Your task to perform on an android device: add a contact in the contacts app Image 0: 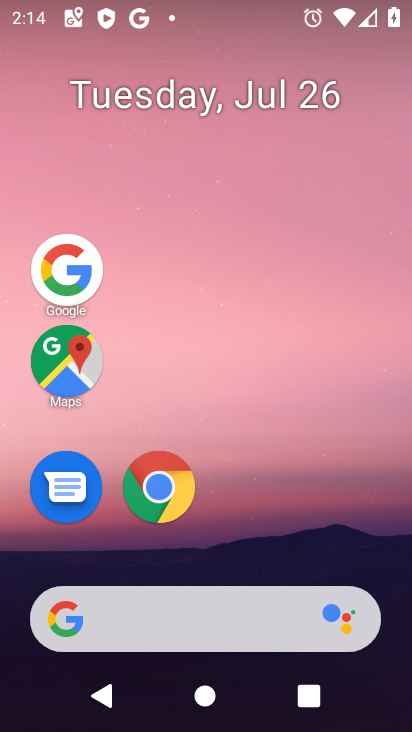
Step 0: drag from (101, 591) to (167, 258)
Your task to perform on an android device: add a contact in the contacts app Image 1: 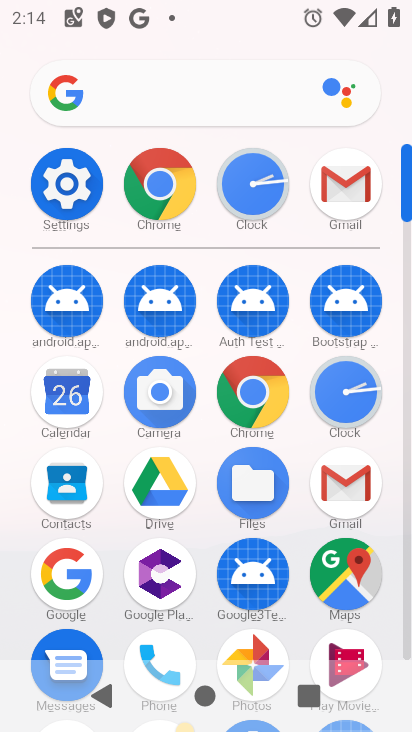
Step 1: click (82, 477)
Your task to perform on an android device: add a contact in the contacts app Image 2: 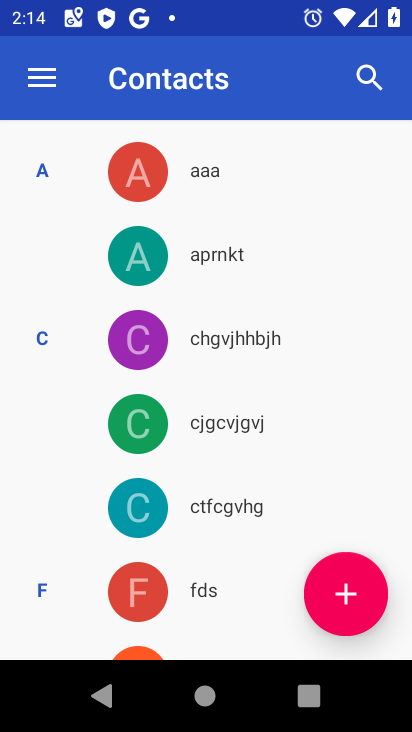
Step 2: click (356, 597)
Your task to perform on an android device: add a contact in the contacts app Image 3: 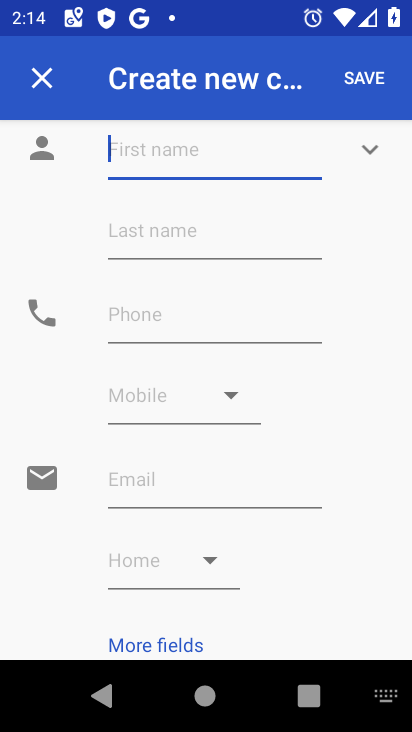
Step 3: type "jhchjvb"
Your task to perform on an android device: add a contact in the contacts app Image 4: 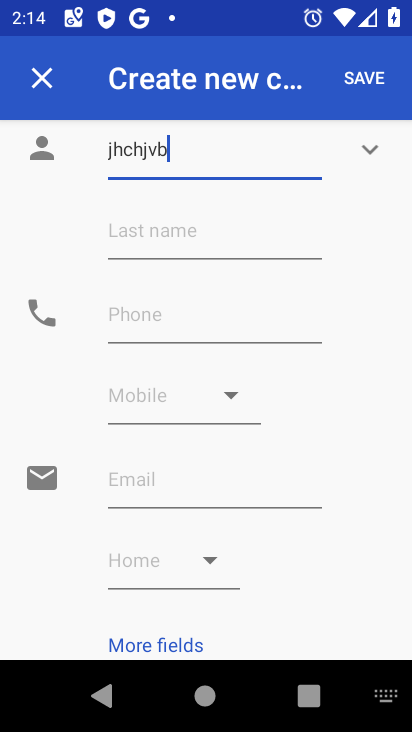
Step 4: click (223, 304)
Your task to perform on an android device: add a contact in the contacts app Image 5: 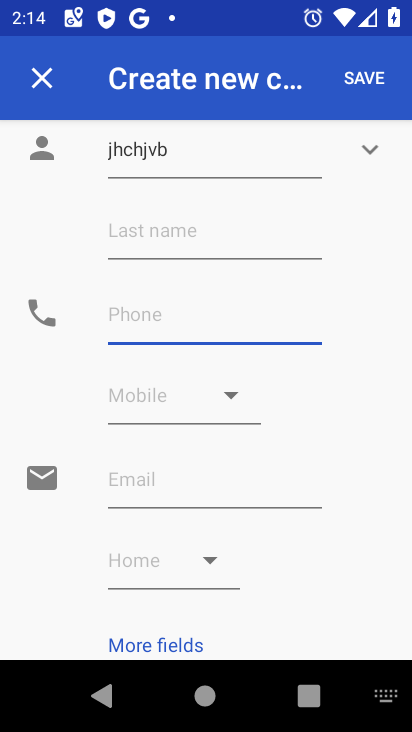
Step 5: type "687"
Your task to perform on an android device: add a contact in the contacts app Image 6: 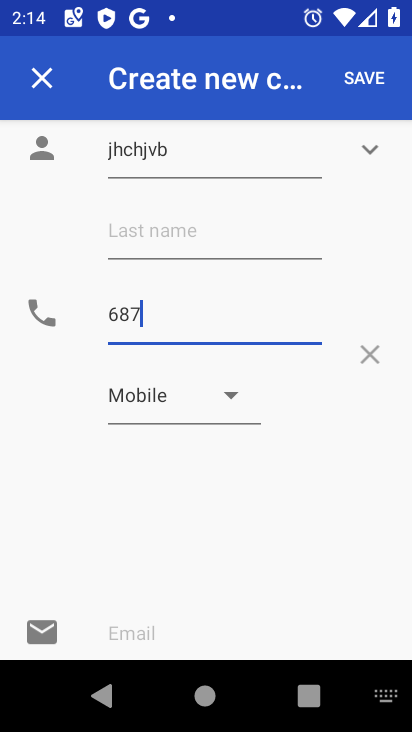
Step 6: type ""
Your task to perform on an android device: add a contact in the contacts app Image 7: 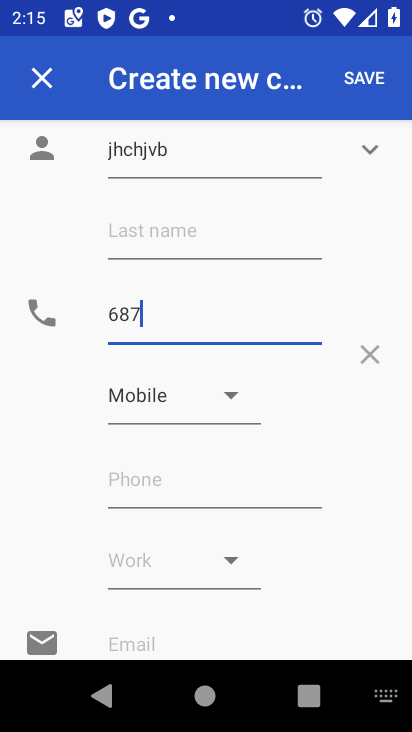
Step 7: click (369, 80)
Your task to perform on an android device: add a contact in the contacts app Image 8: 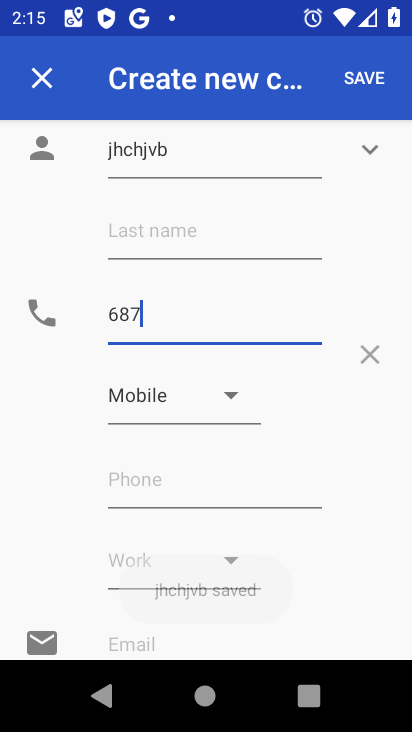
Step 8: task complete